Your task to perform on an android device: What's the weather going to be this weekend? Image 0: 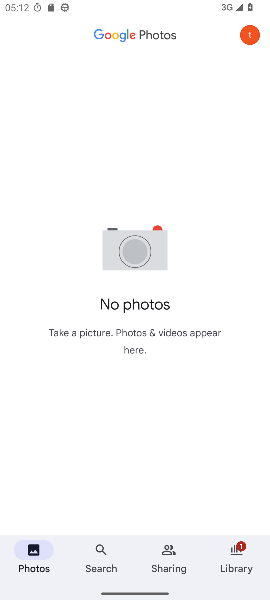
Step 0: press home button
Your task to perform on an android device: What's the weather going to be this weekend? Image 1: 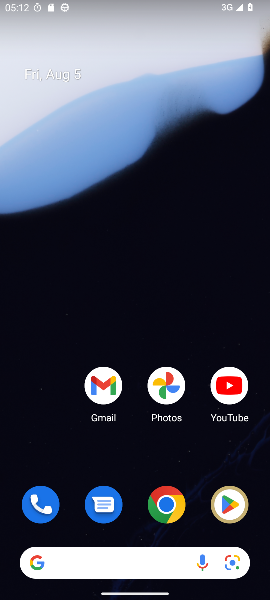
Step 1: click (73, 567)
Your task to perform on an android device: What's the weather going to be this weekend? Image 2: 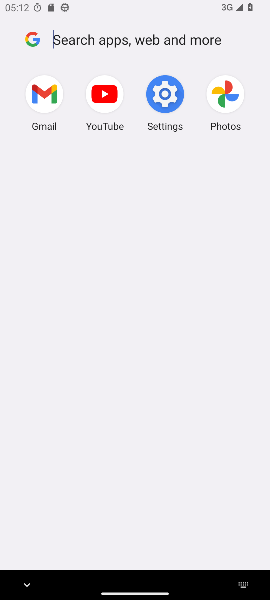
Step 2: type "What's the weather going to be this weekend?"
Your task to perform on an android device: What's the weather going to be this weekend? Image 3: 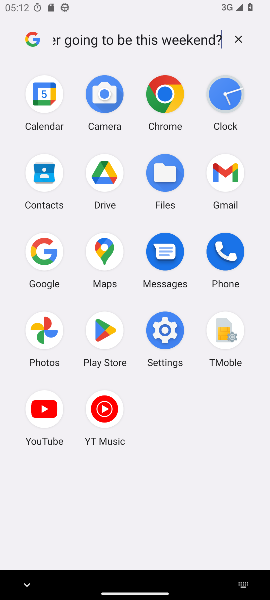
Step 3: task complete